Your task to perform on an android device: Open the map Image 0: 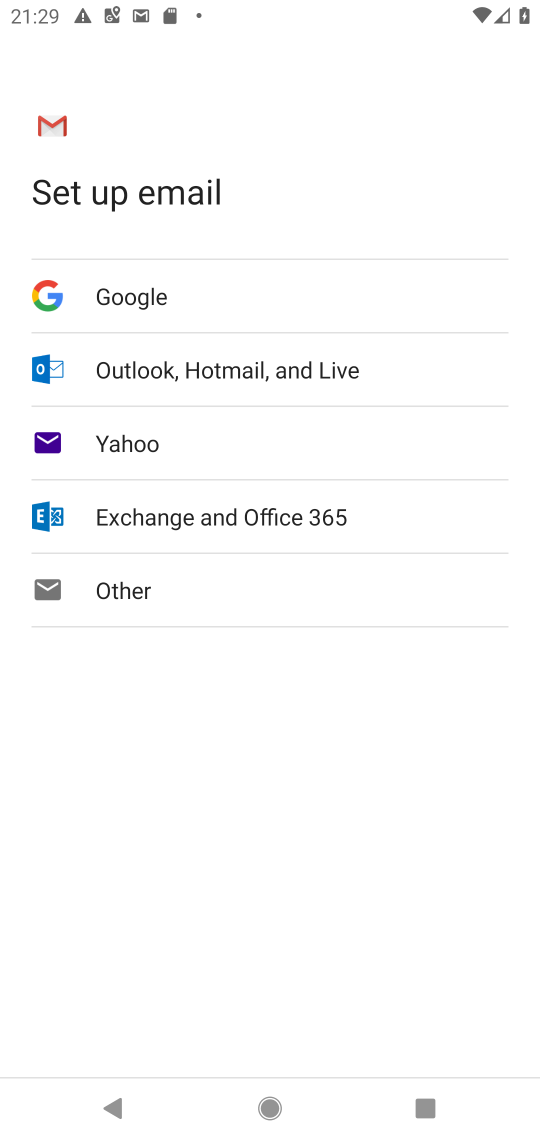
Step 0: press home button
Your task to perform on an android device: Open the map Image 1: 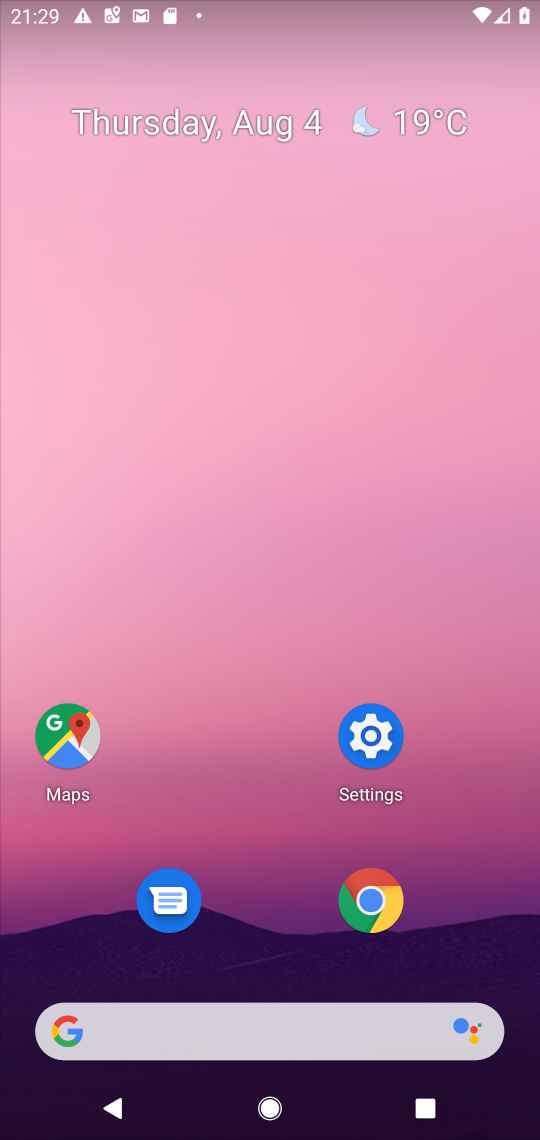
Step 1: click (66, 736)
Your task to perform on an android device: Open the map Image 2: 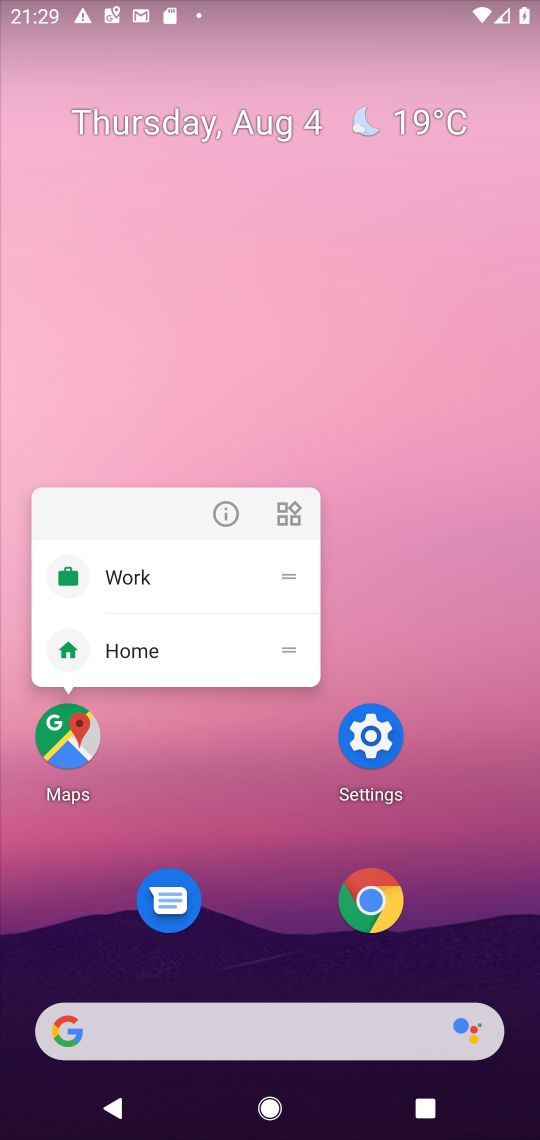
Step 2: click (66, 725)
Your task to perform on an android device: Open the map Image 3: 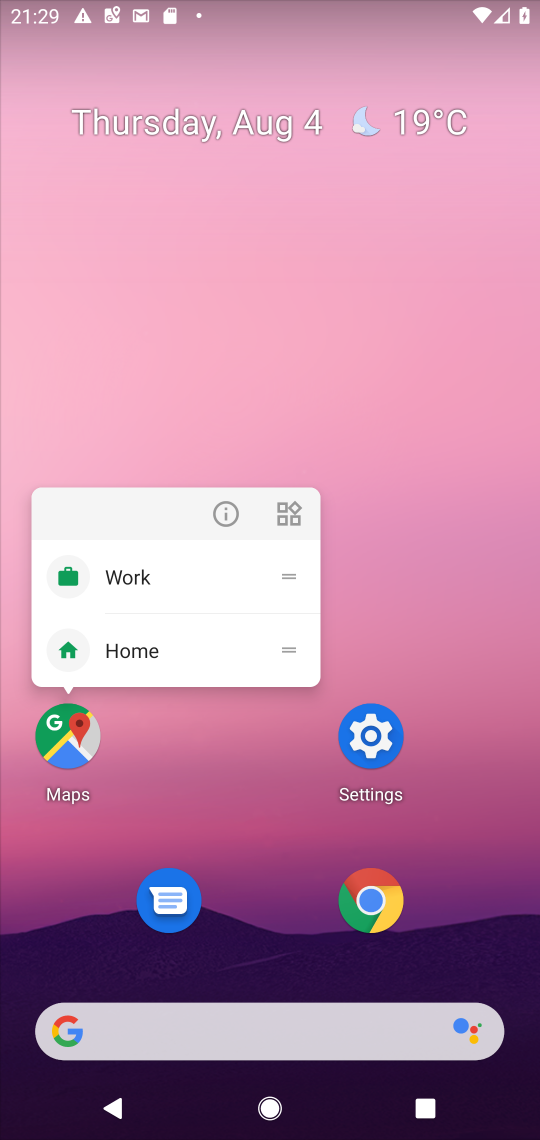
Step 3: click (66, 722)
Your task to perform on an android device: Open the map Image 4: 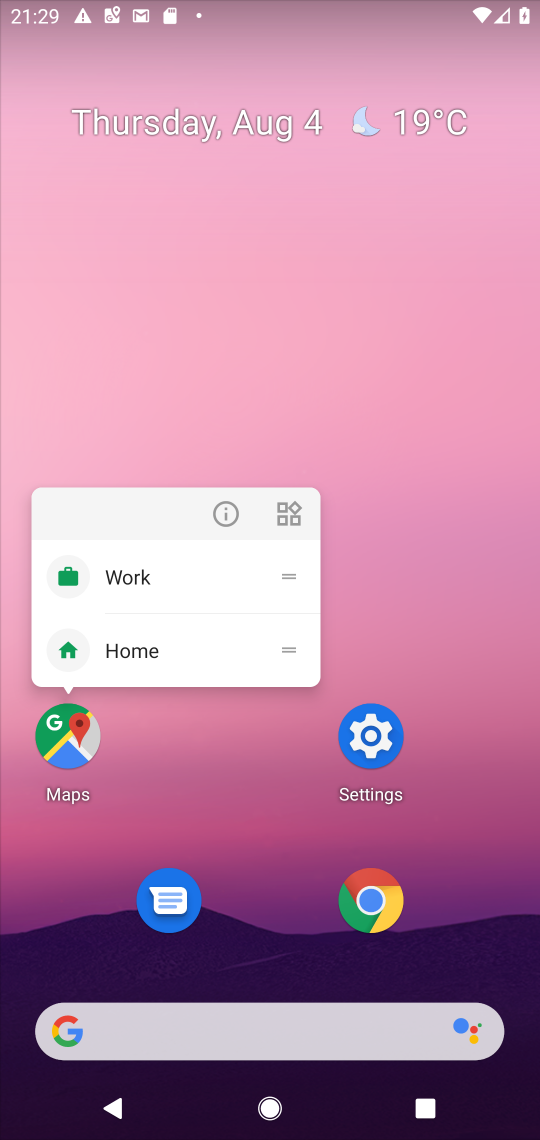
Step 4: click (68, 736)
Your task to perform on an android device: Open the map Image 5: 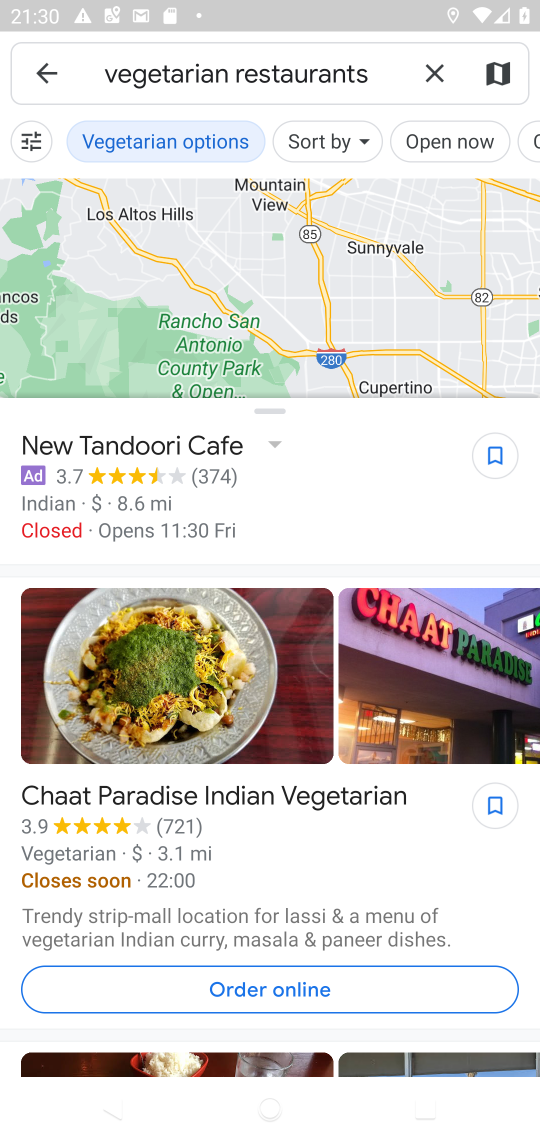
Step 5: click (429, 64)
Your task to perform on an android device: Open the map Image 6: 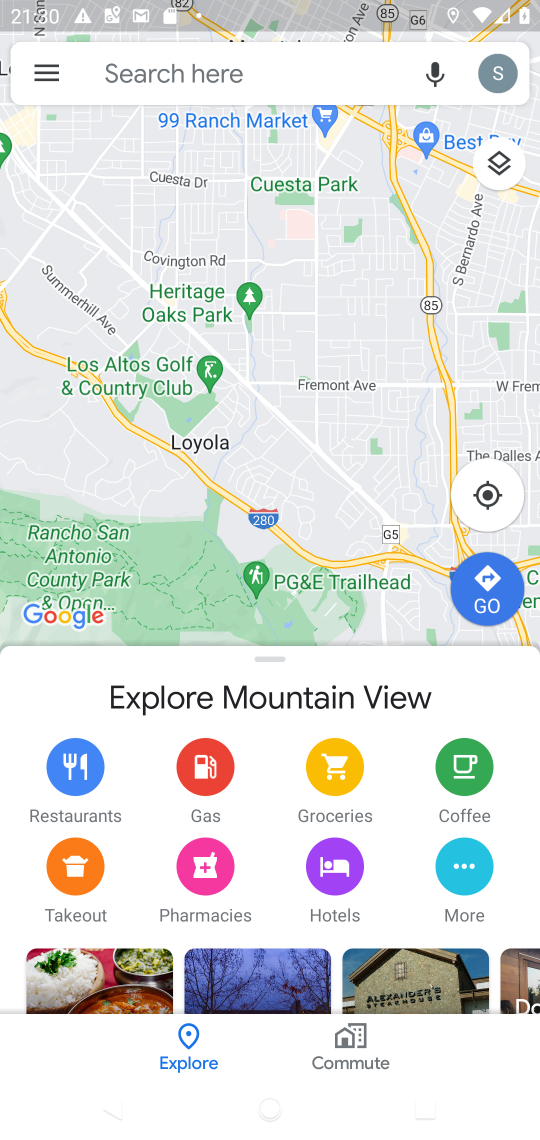
Step 6: task complete